Your task to perform on an android device: change notification settings in the gmail app Image 0: 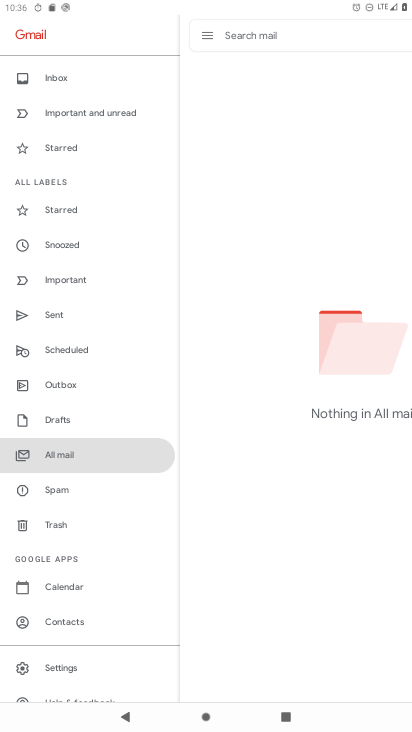
Step 0: click (90, 682)
Your task to perform on an android device: change notification settings in the gmail app Image 1: 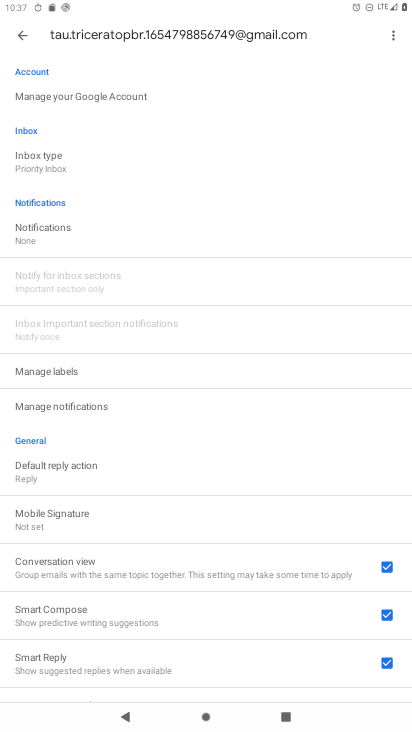
Step 1: drag from (193, 607) to (208, 282)
Your task to perform on an android device: change notification settings in the gmail app Image 2: 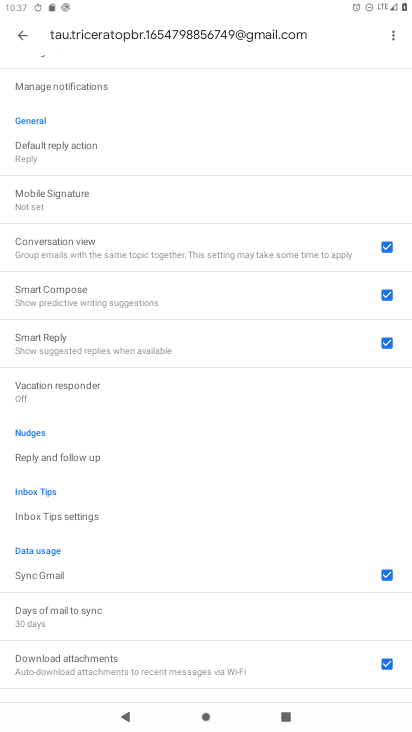
Step 2: drag from (208, 282) to (171, 644)
Your task to perform on an android device: change notification settings in the gmail app Image 3: 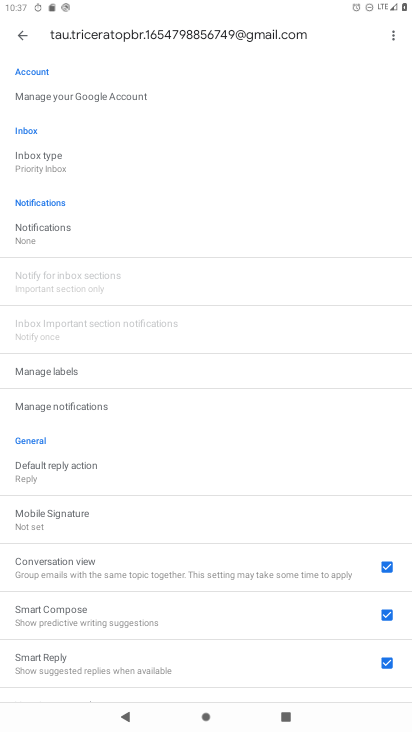
Step 3: click (77, 239)
Your task to perform on an android device: change notification settings in the gmail app Image 4: 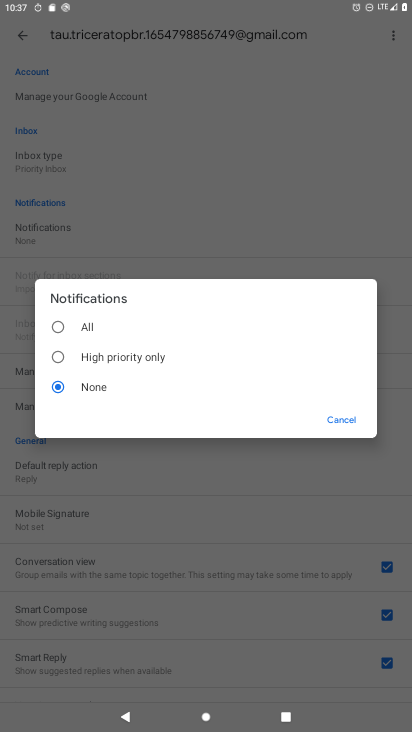
Step 4: click (160, 354)
Your task to perform on an android device: change notification settings in the gmail app Image 5: 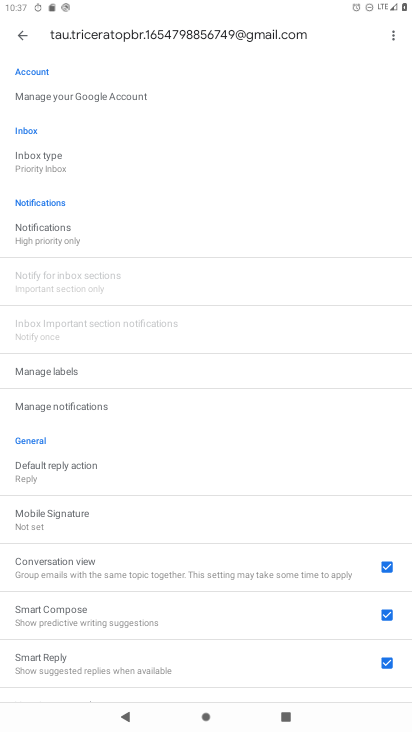
Step 5: task complete